Your task to perform on an android device: Show me popular games on the Play Store Image 0: 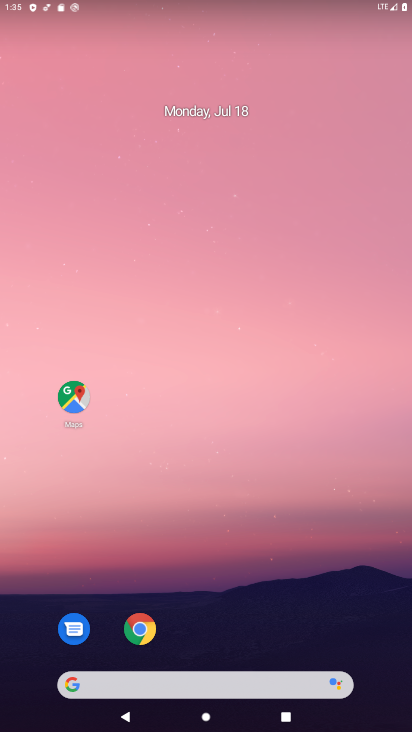
Step 0: press home button
Your task to perform on an android device: Show me popular games on the Play Store Image 1: 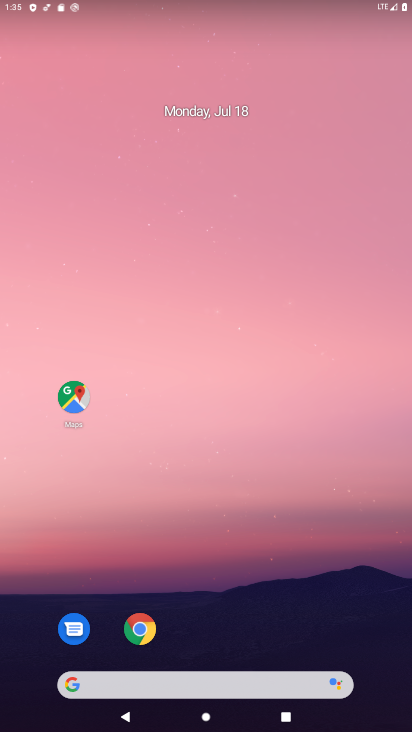
Step 1: drag from (214, 652) to (264, 2)
Your task to perform on an android device: Show me popular games on the Play Store Image 2: 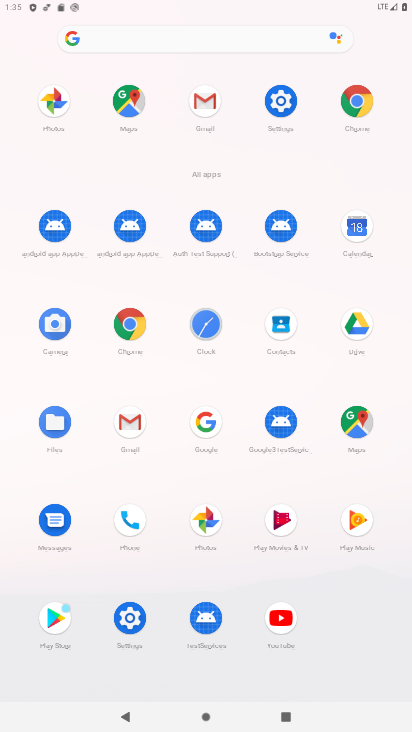
Step 2: click (54, 613)
Your task to perform on an android device: Show me popular games on the Play Store Image 3: 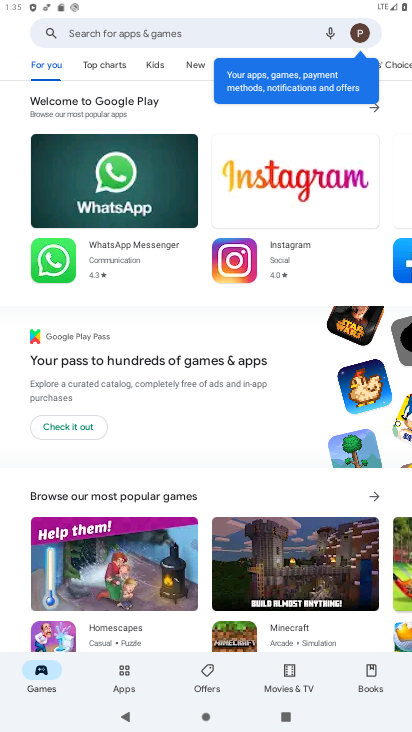
Step 3: click (376, 495)
Your task to perform on an android device: Show me popular games on the Play Store Image 4: 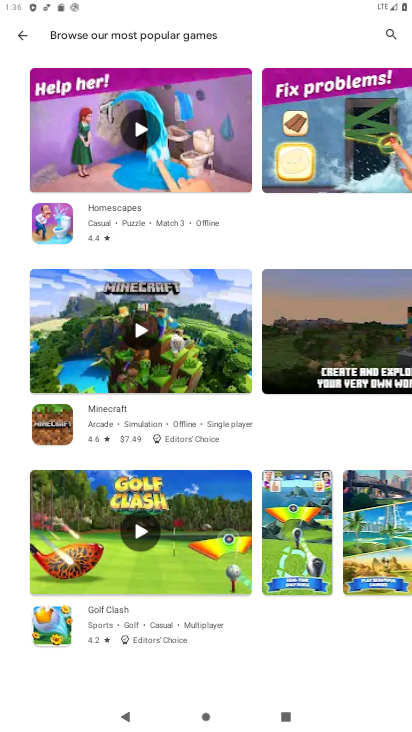
Step 4: task complete